Your task to perform on an android device: turn on bluetooth scan Image 0: 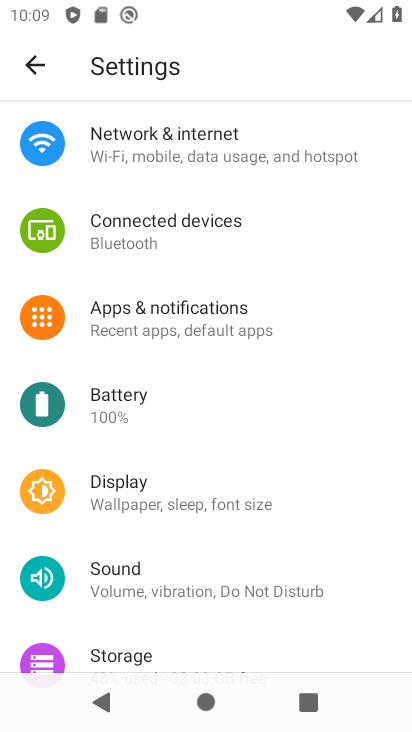
Step 0: press home button
Your task to perform on an android device: turn on bluetooth scan Image 1: 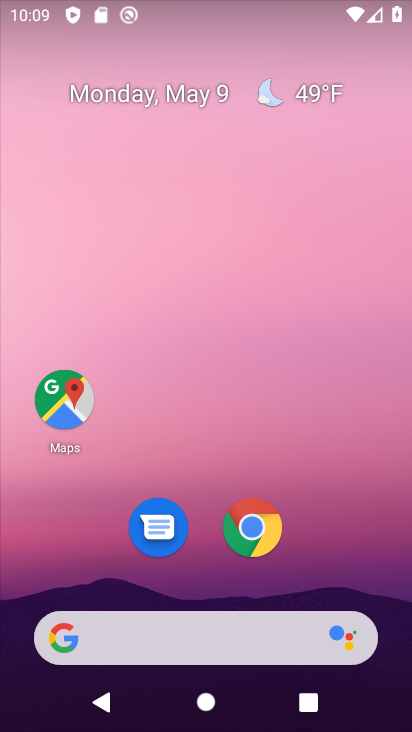
Step 1: drag from (322, 584) to (279, 112)
Your task to perform on an android device: turn on bluetooth scan Image 2: 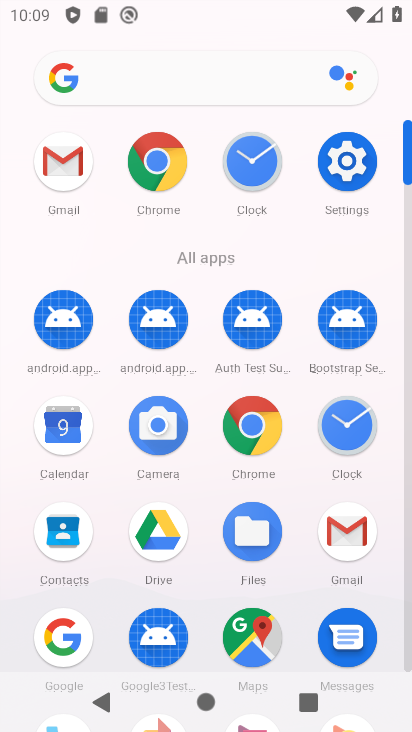
Step 2: click (346, 163)
Your task to perform on an android device: turn on bluetooth scan Image 3: 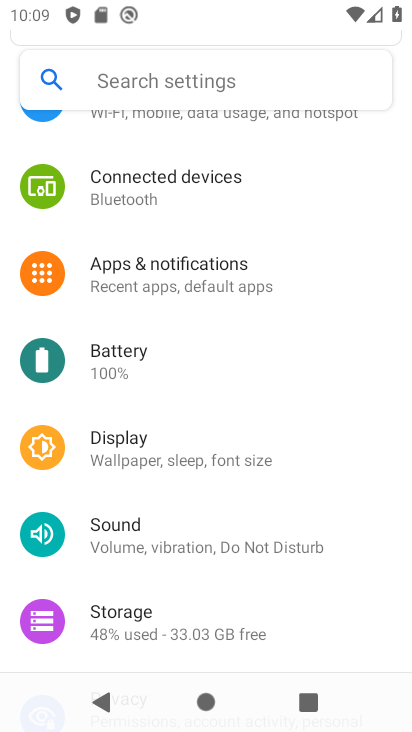
Step 3: drag from (187, 220) to (234, 367)
Your task to perform on an android device: turn on bluetooth scan Image 4: 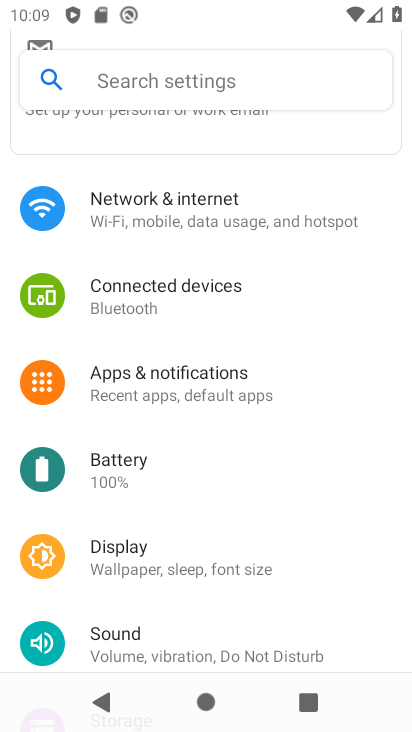
Step 4: drag from (208, 456) to (207, 335)
Your task to perform on an android device: turn on bluetooth scan Image 5: 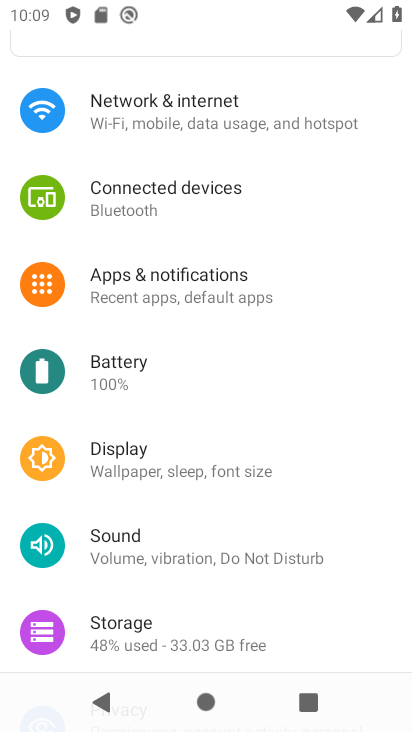
Step 5: drag from (189, 508) to (213, 383)
Your task to perform on an android device: turn on bluetooth scan Image 6: 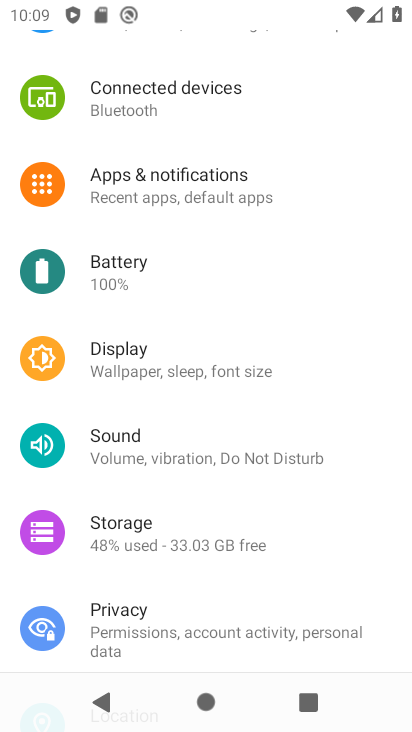
Step 6: drag from (181, 578) to (216, 389)
Your task to perform on an android device: turn on bluetooth scan Image 7: 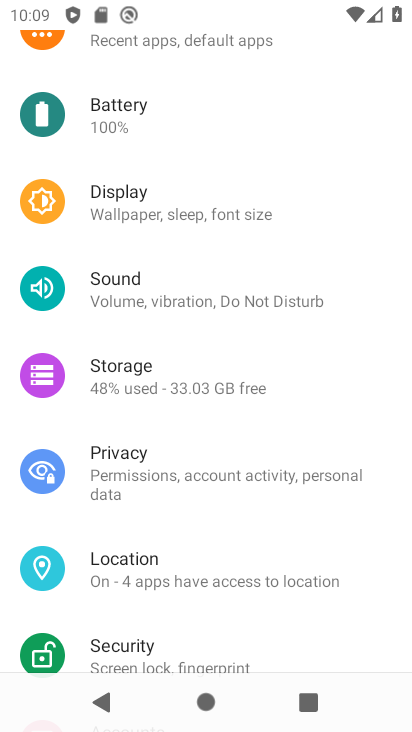
Step 7: drag from (176, 541) to (275, 341)
Your task to perform on an android device: turn on bluetooth scan Image 8: 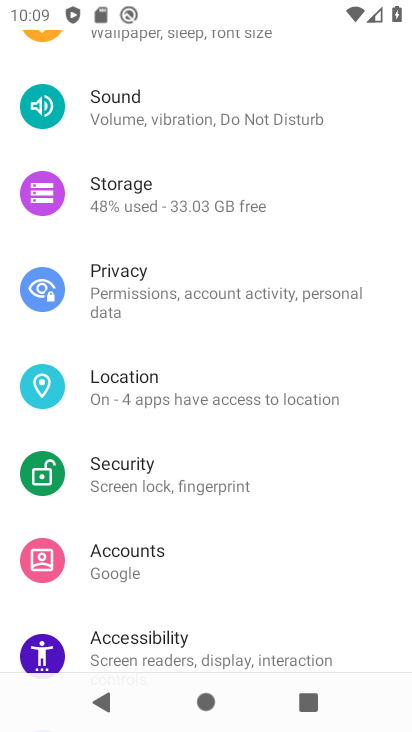
Step 8: drag from (204, 558) to (237, 412)
Your task to perform on an android device: turn on bluetooth scan Image 9: 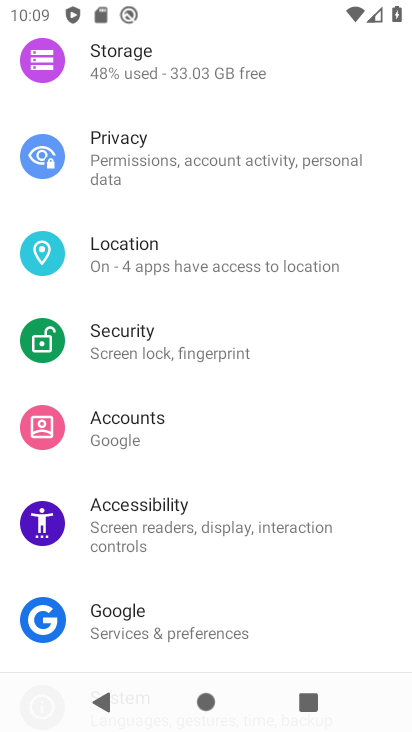
Step 9: click (202, 273)
Your task to perform on an android device: turn on bluetooth scan Image 10: 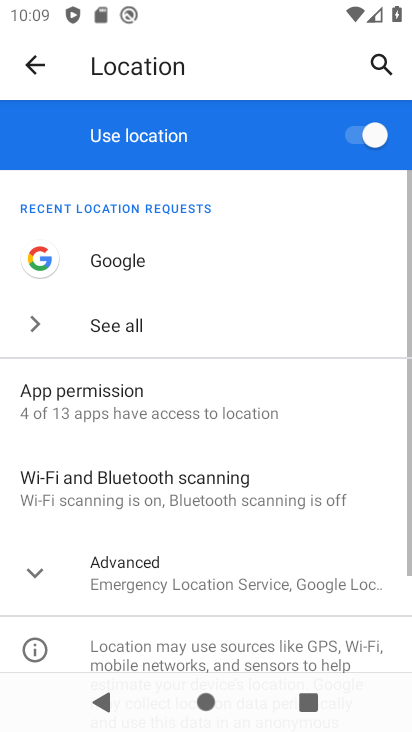
Step 10: click (169, 494)
Your task to perform on an android device: turn on bluetooth scan Image 11: 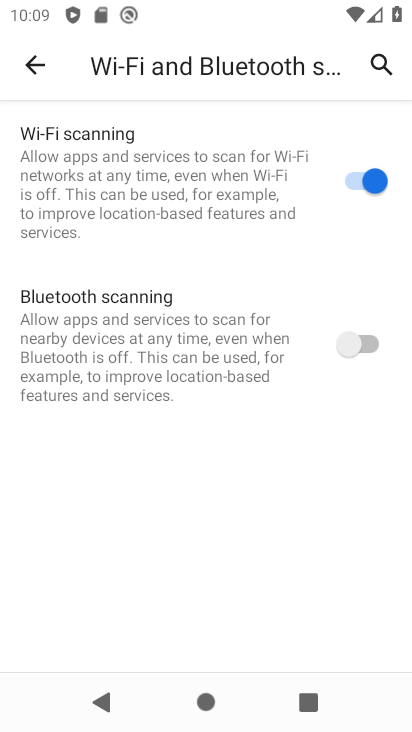
Step 11: click (340, 340)
Your task to perform on an android device: turn on bluetooth scan Image 12: 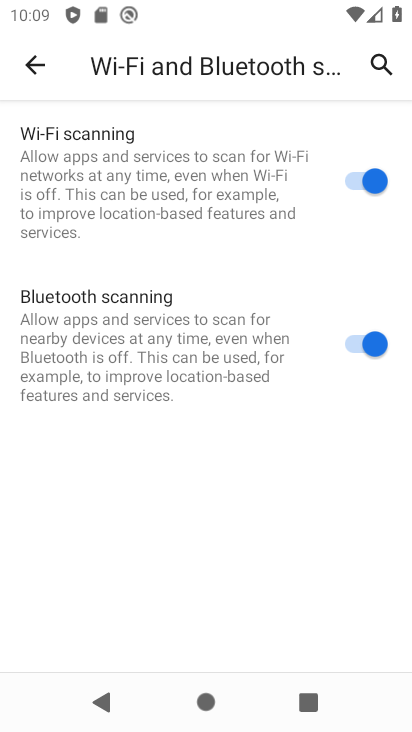
Step 12: task complete